Your task to perform on an android device: Go to ESPN.com Image 0: 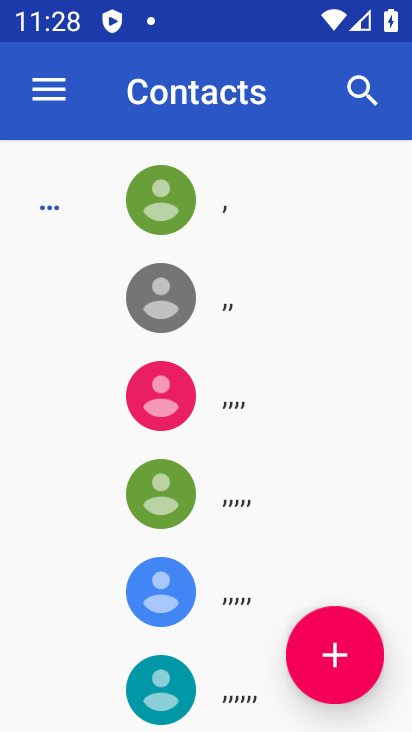
Step 0: press home button
Your task to perform on an android device: Go to ESPN.com Image 1: 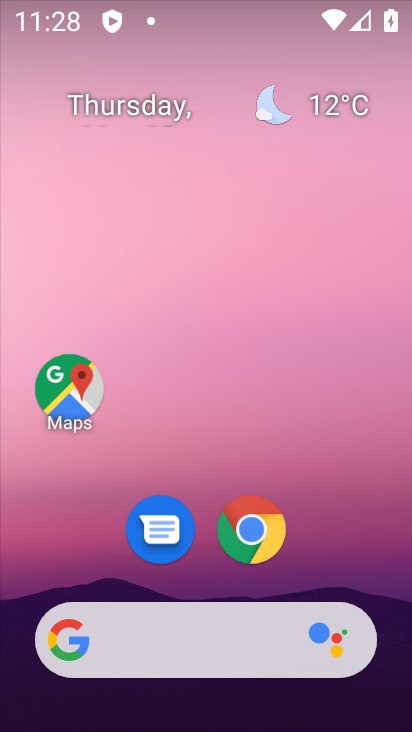
Step 1: click (255, 515)
Your task to perform on an android device: Go to ESPN.com Image 2: 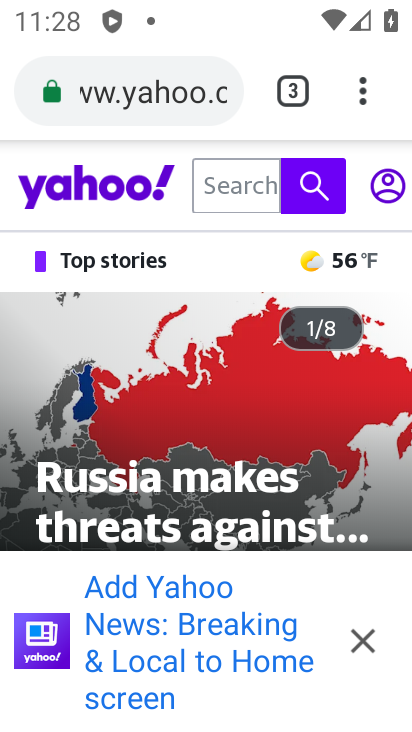
Step 2: click (332, 79)
Your task to perform on an android device: Go to ESPN.com Image 3: 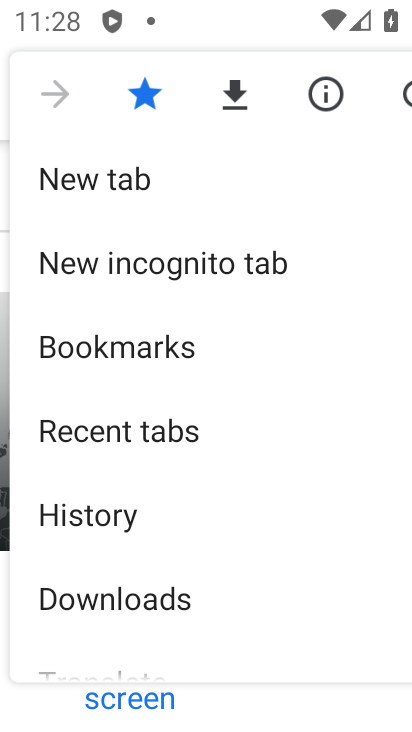
Step 3: click (146, 172)
Your task to perform on an android device: Go to ESPN.com Image 4: 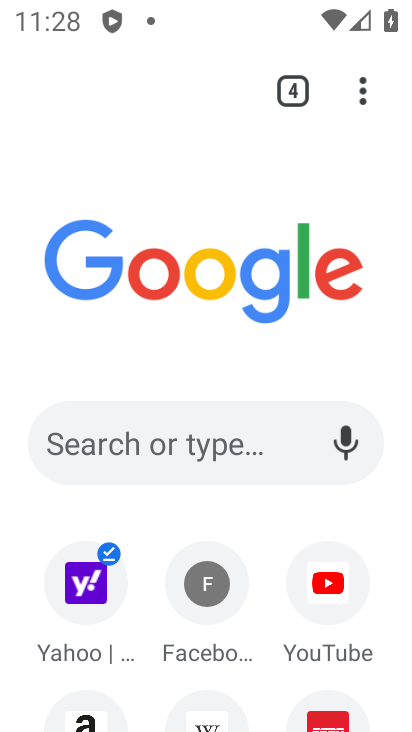
Step 4: click (194, 442)
Your task to perform on an android device: Go to ESPN.com Image 5: 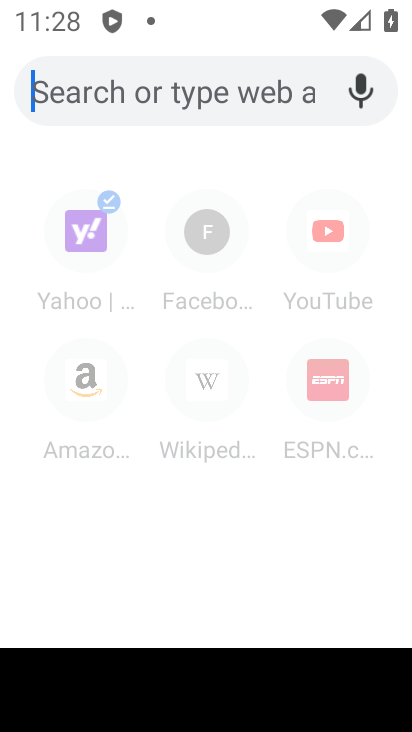
Step 5: type "ESPN.com"
Your task to perform on an android device: Go to ESPN.com Image 6: 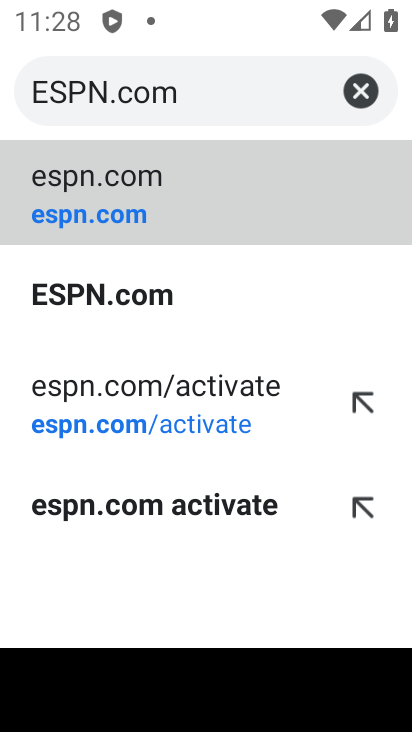
Step 6: click (126, 304)
Your task to perform on an android device: Go to ESPN.com Image 7: 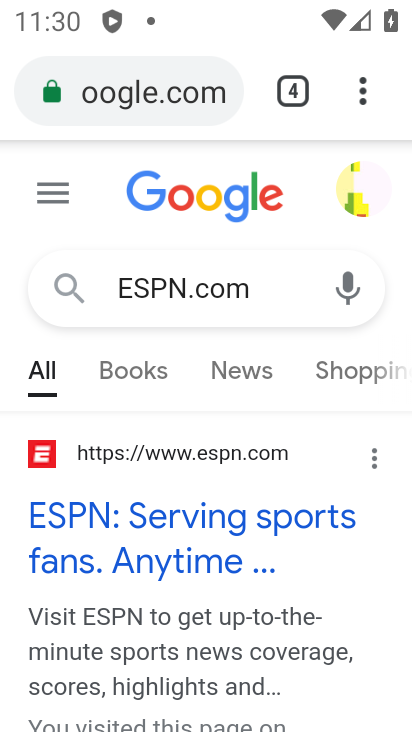
Step 7: task complete